Your task to perform on an android device: install app "Google Drive" Image 0: 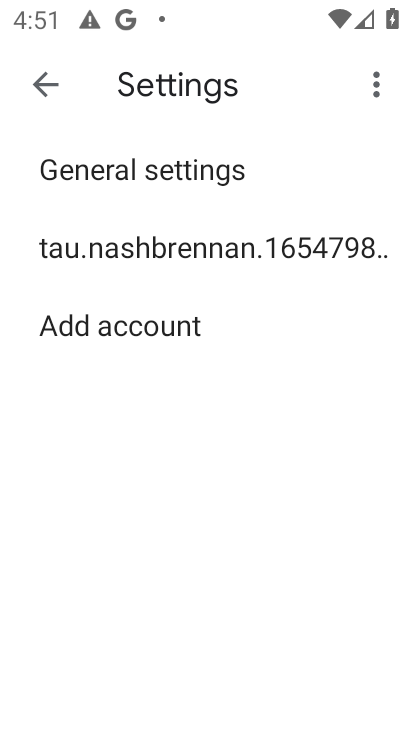
Step 0: drag from (289, 606) to (275, 241)
Your task to perform on an android device: install app "Google Drive" Image 1: 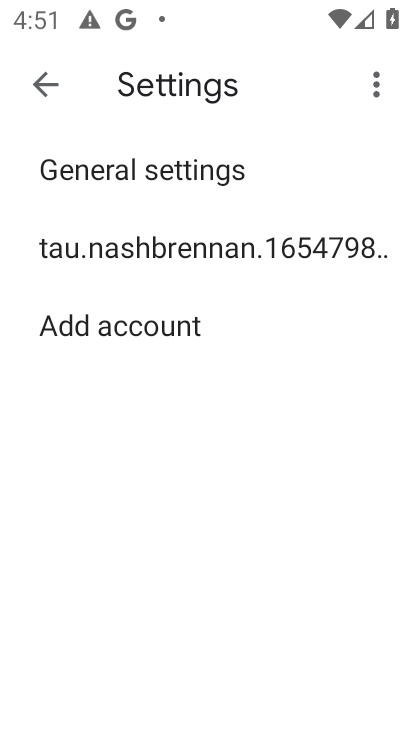
Step 1: click (42, 78)
Your task to perform on an android device: install app "Google Drive" Image 2: 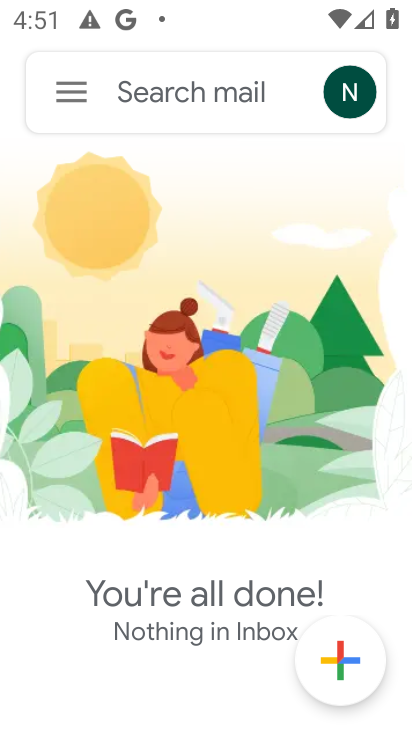
Step 2: click (66, 102)
Your task to perform on an android device: install app "Google Drive" Image 3: 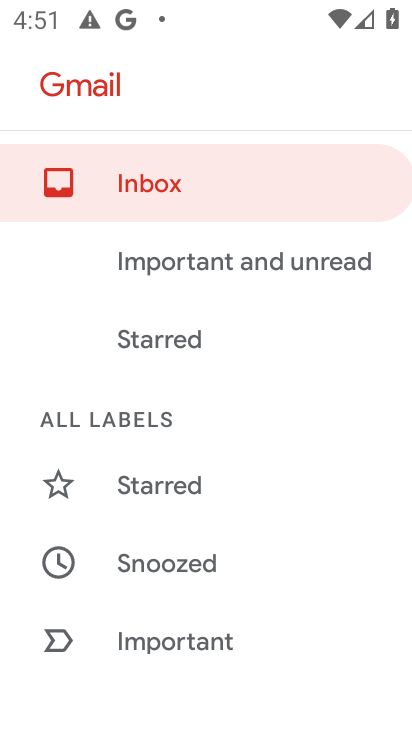
Step 3: press back button
Your task to perform on an android device: install app "Google Drive" Image 4: 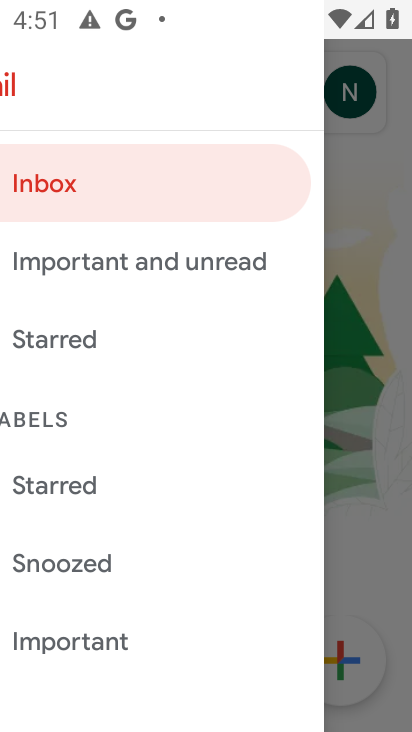
Step 4: press back button
Your task to perform on an android device: install app "Google Drive" Image 5: 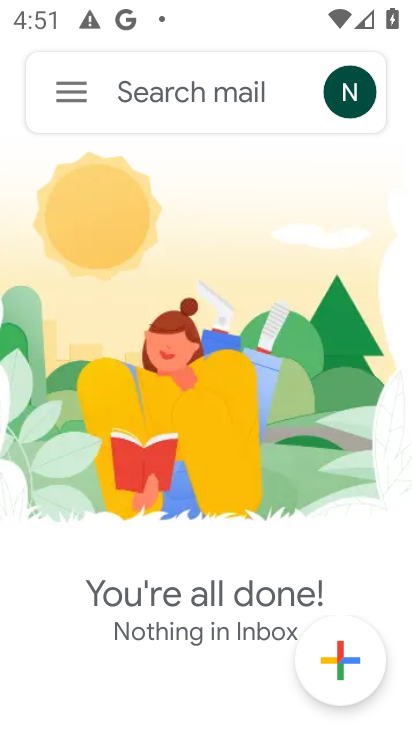
Step 5: press back button
Your task to perform on an android device: install app "Google Drive" Image 6: 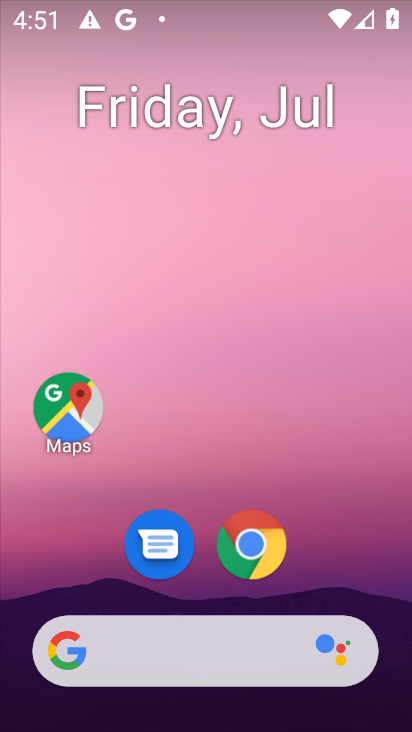
Step 6: drag from (217, 633) to (129, 302)
Your task to perform on an android device: install app "Google Drive" Image 7: 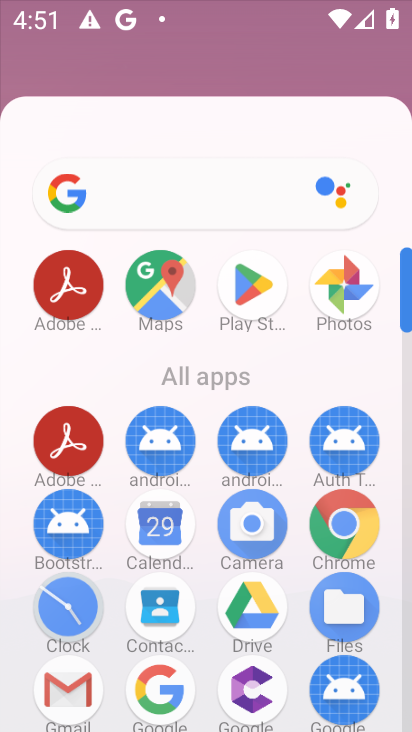
Step 7: drag from (165, 439) to (152, 334)
Your task to perform on an android device: install app "Google Drive" Image 8: 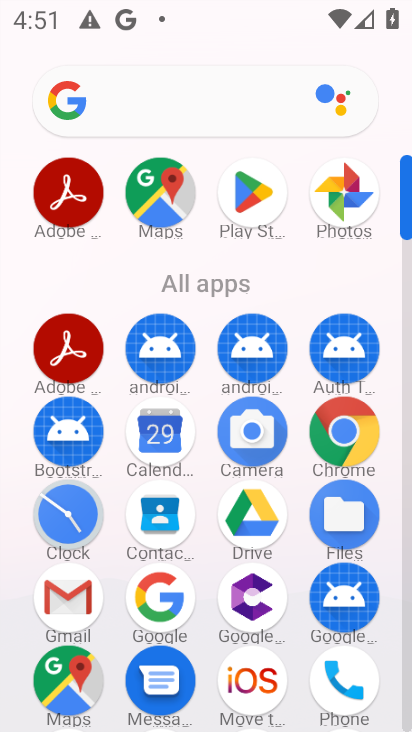
Step 8: click (253, 189)
Your task to perform on an android device: install app "Google Drive" Image 9: 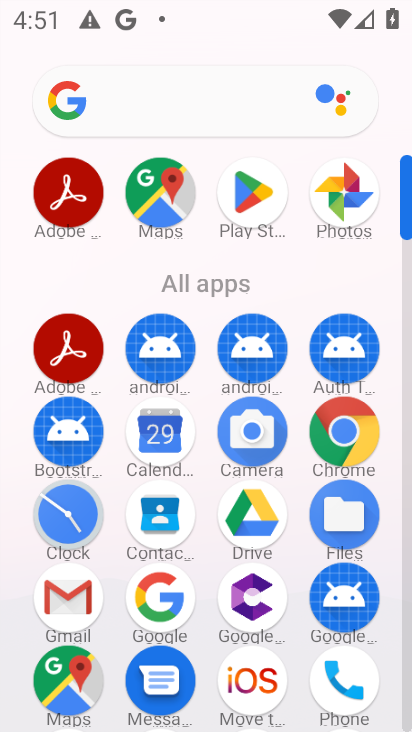
Step 9: click (254, 191)
Your task to perform on an android device: install app "Google Drive" Image 10: 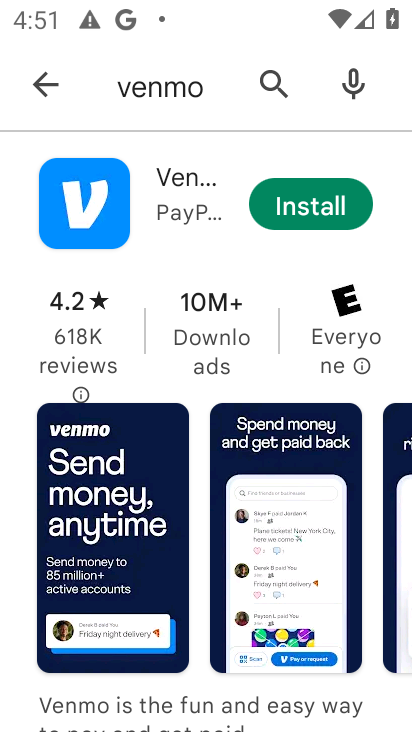
Step 10: click (257, 197)
Your task to perform on an android device: install app "Google Drive" Image 11: 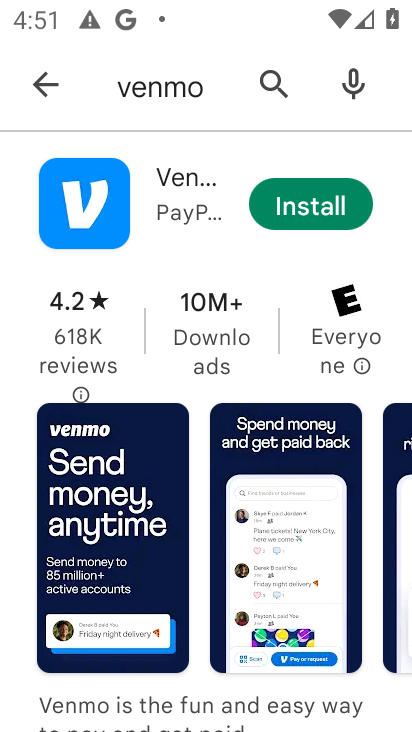
Step 11: click (257, 197)
Your task to perform on an android device: install app "Google Drive" Image 12: 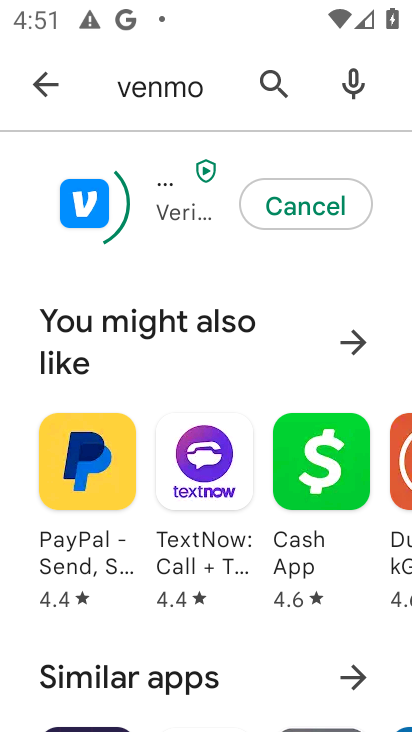
Step 12: click (53, 80)
Your task to perform on an android device: install app "Google Drive" Image 13: 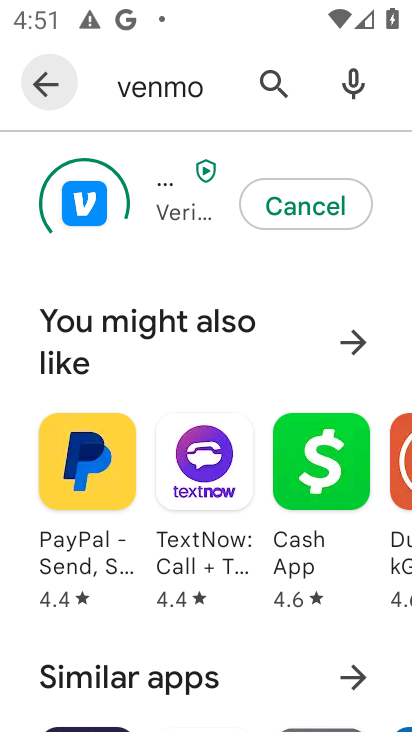
Step 13: click (51, 80)
Your task to perform on an android device: install app "Google Drive" Image 14: 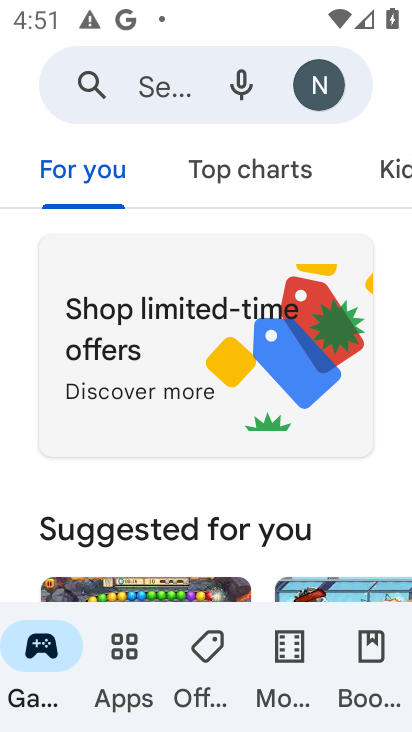
Step 14: click (152, 82)
Your task to perform on an android device: install app "Google Drive" Image 15: 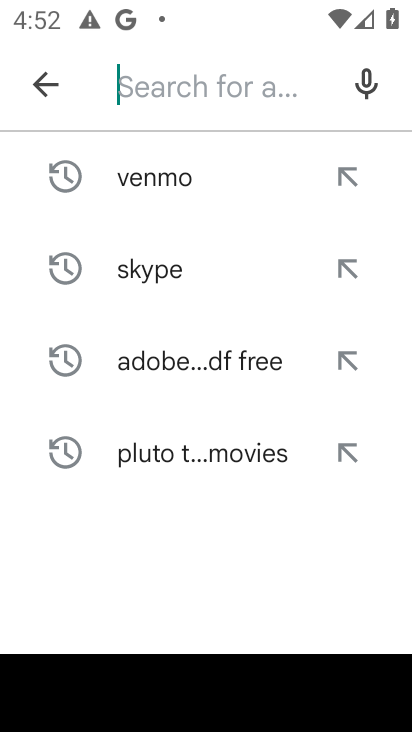
Step 15: click (164, 84)
Your task to perform on an android device: install app "Google Drive" Image 16: 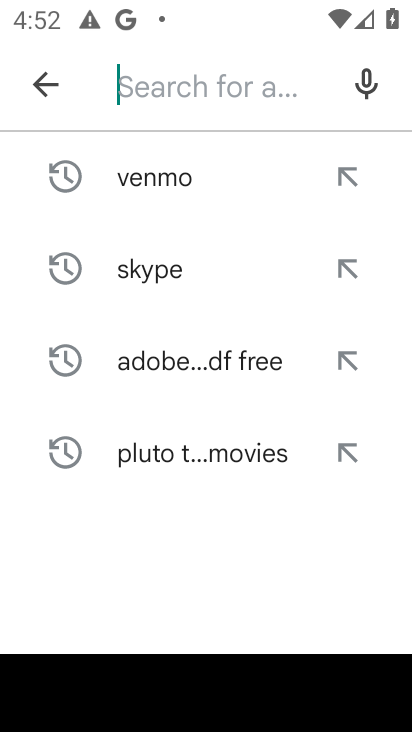
Step 16: click (163, 83)
Your task to perform on an android device: install app "Google Drive" Image 17: 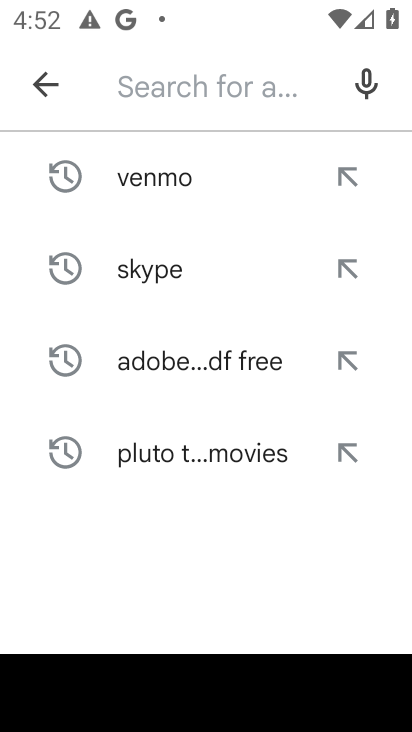
Step 17: click (163, 83)
Your task to perform on an android device: install app "Google Drive" Image 18: 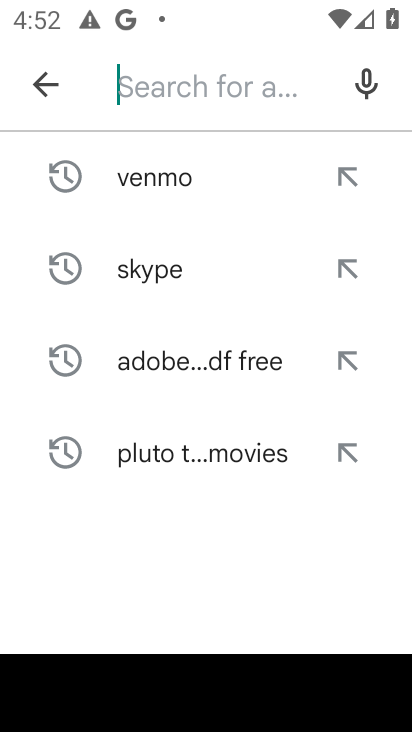
Step 18: type "Google drive"
Your task to perform on an android device: install app "Google Drive" Image 19: 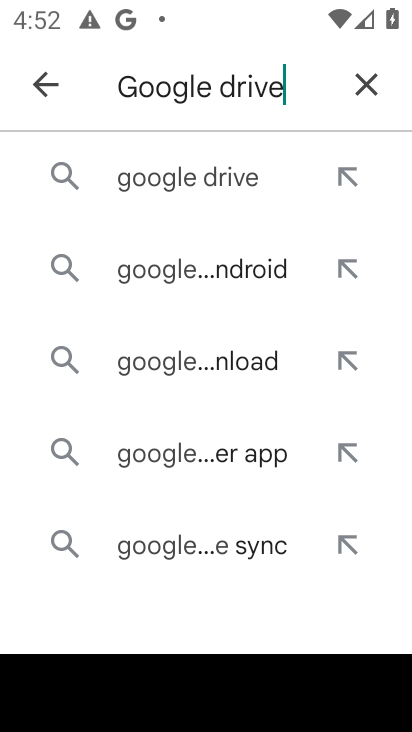
Step 19: click (234, 181)
Your task to perform on an android device: install app "Google Drive" Image 20: 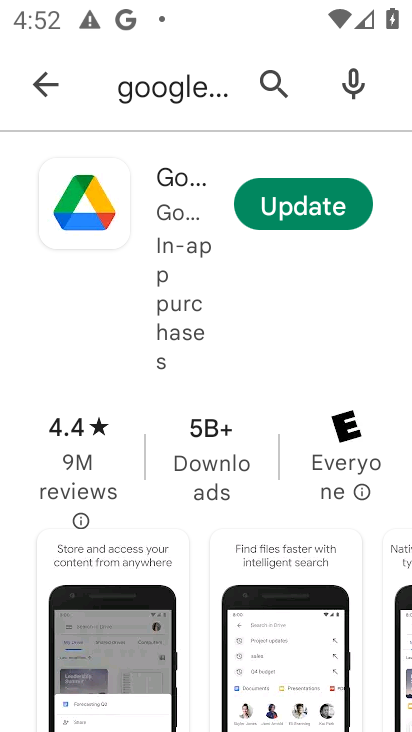
Step 20: click (297, 205)
Your task to perform on an android device: install app "Google Drive" Image 21: 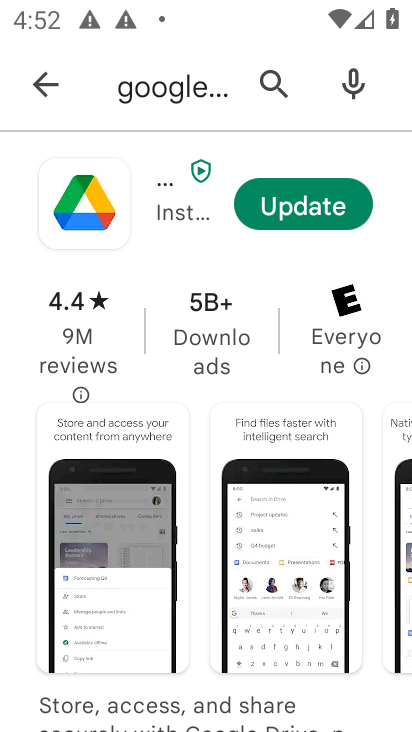
Step 21: task complete